Your task to perform on an android device: turn vacation reply on in the gmail app Image 0: 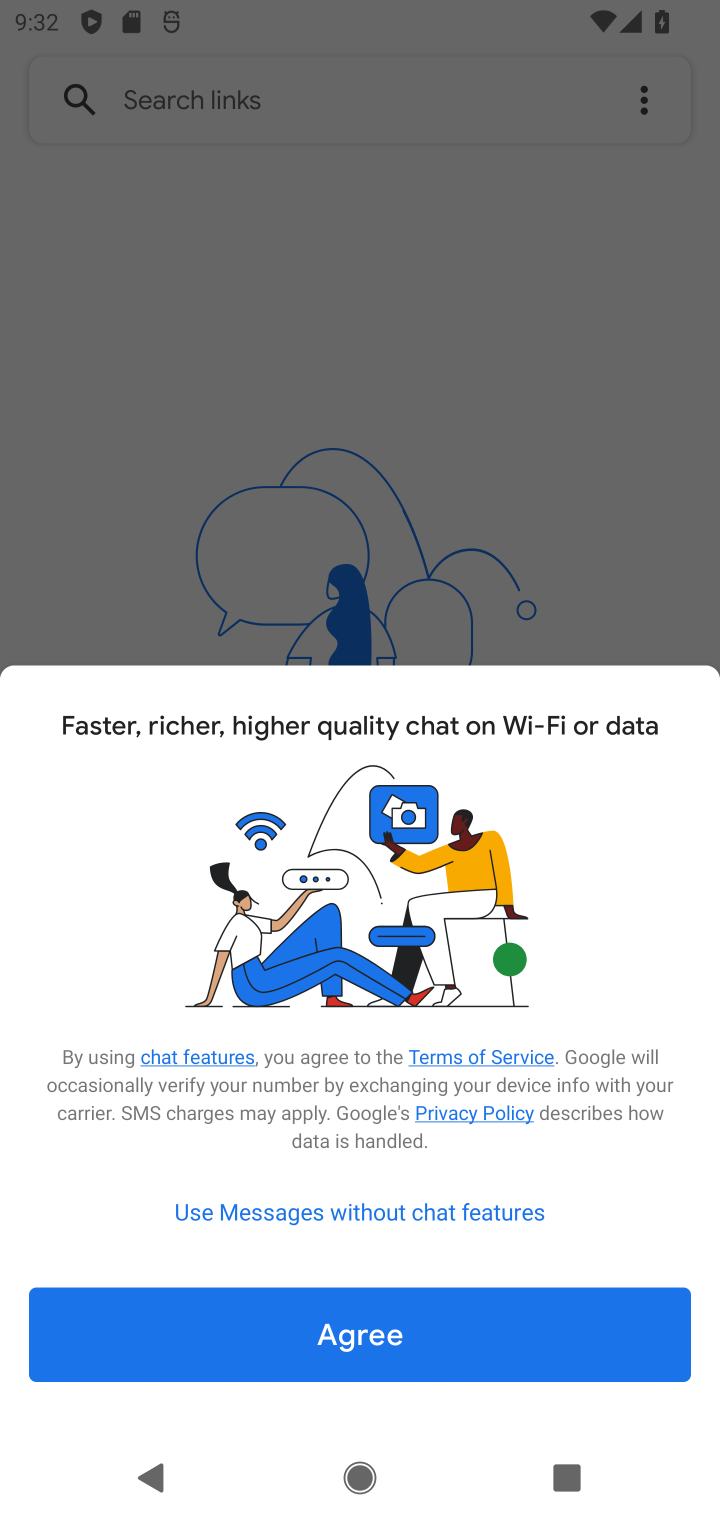
Step 0: press home button
Your task to perform on an android device: turn vacation reply on in the gmail app Image 1: 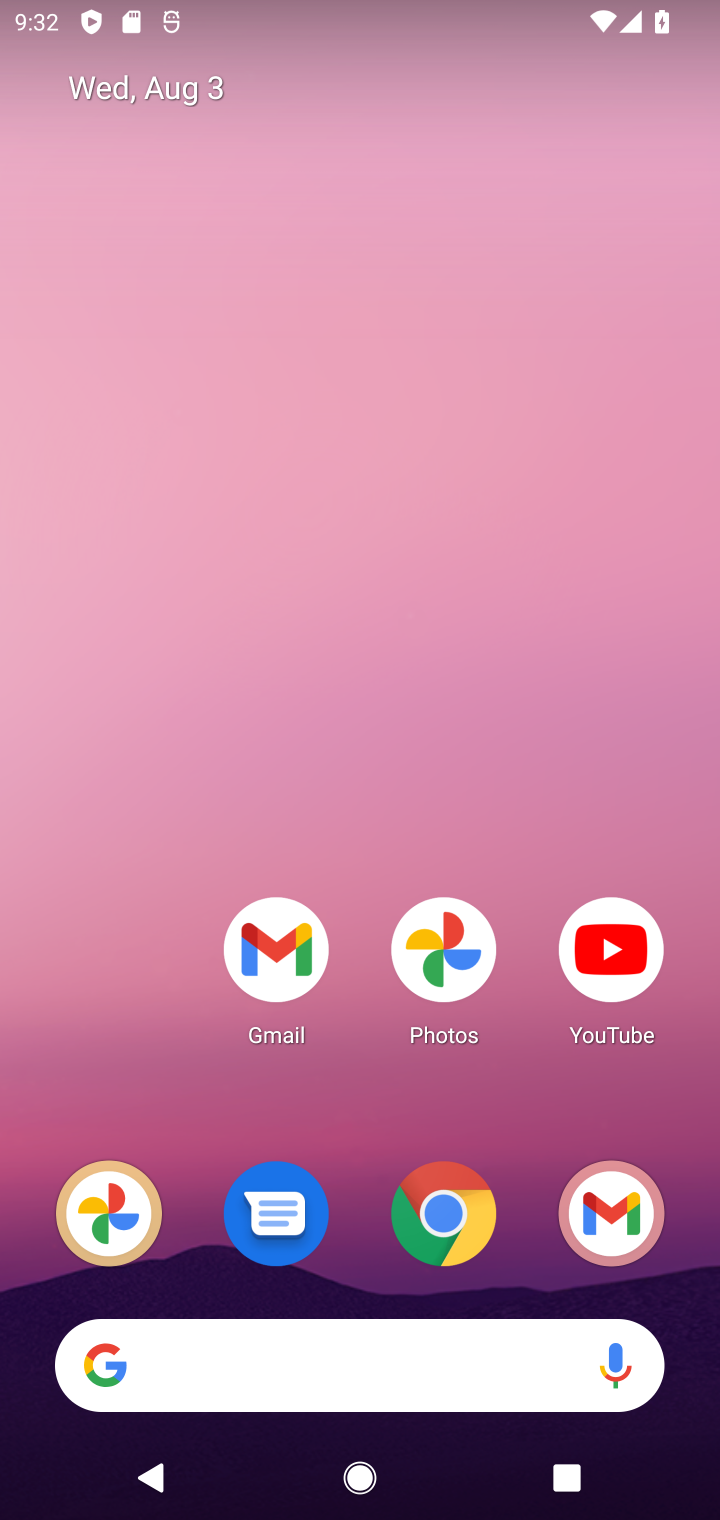
Step 1: click (289, 963)
Your task to perform on an android device: turn vacation reply on in the gmail app Image 2: 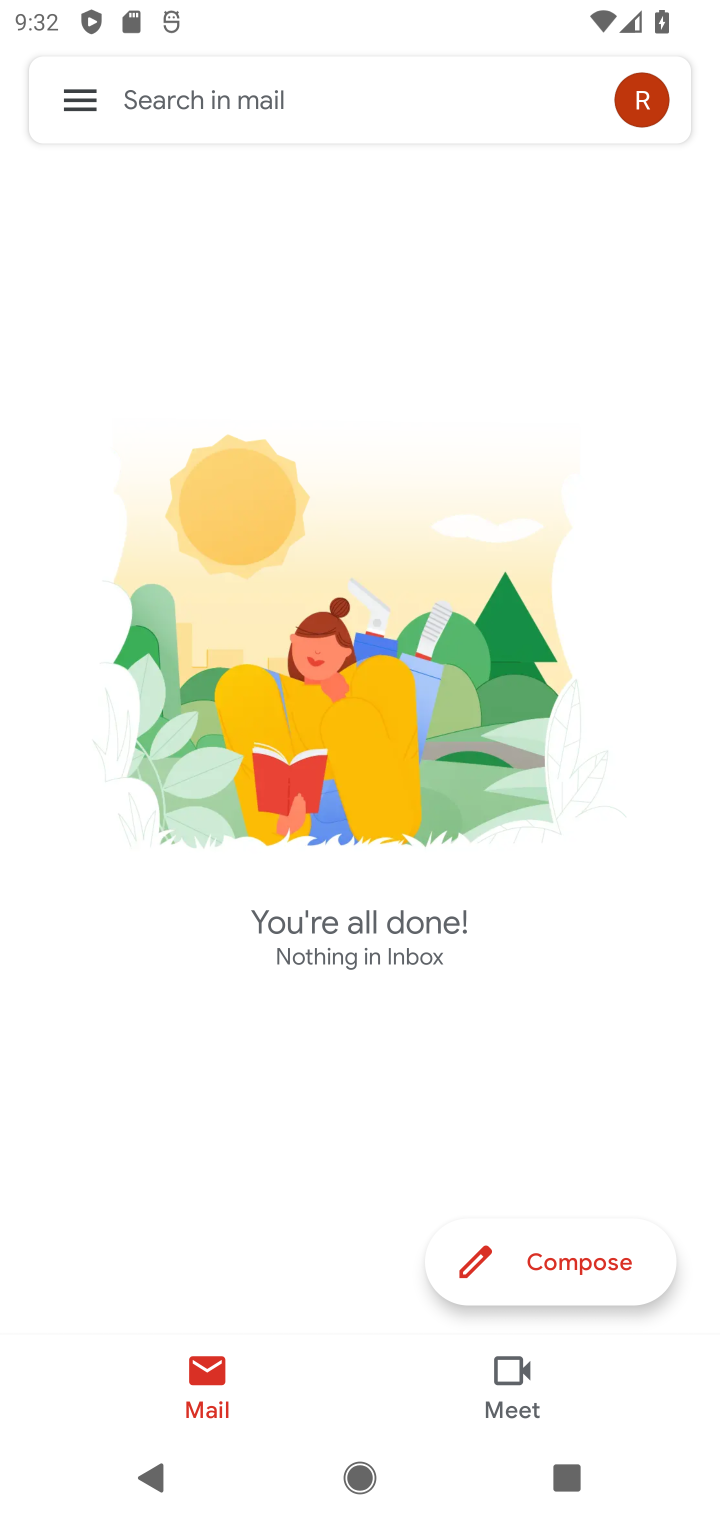
Step 2: click (60, 116)
Your task to perform on an android device: turn vacation reply on in the gmail app Image 3: 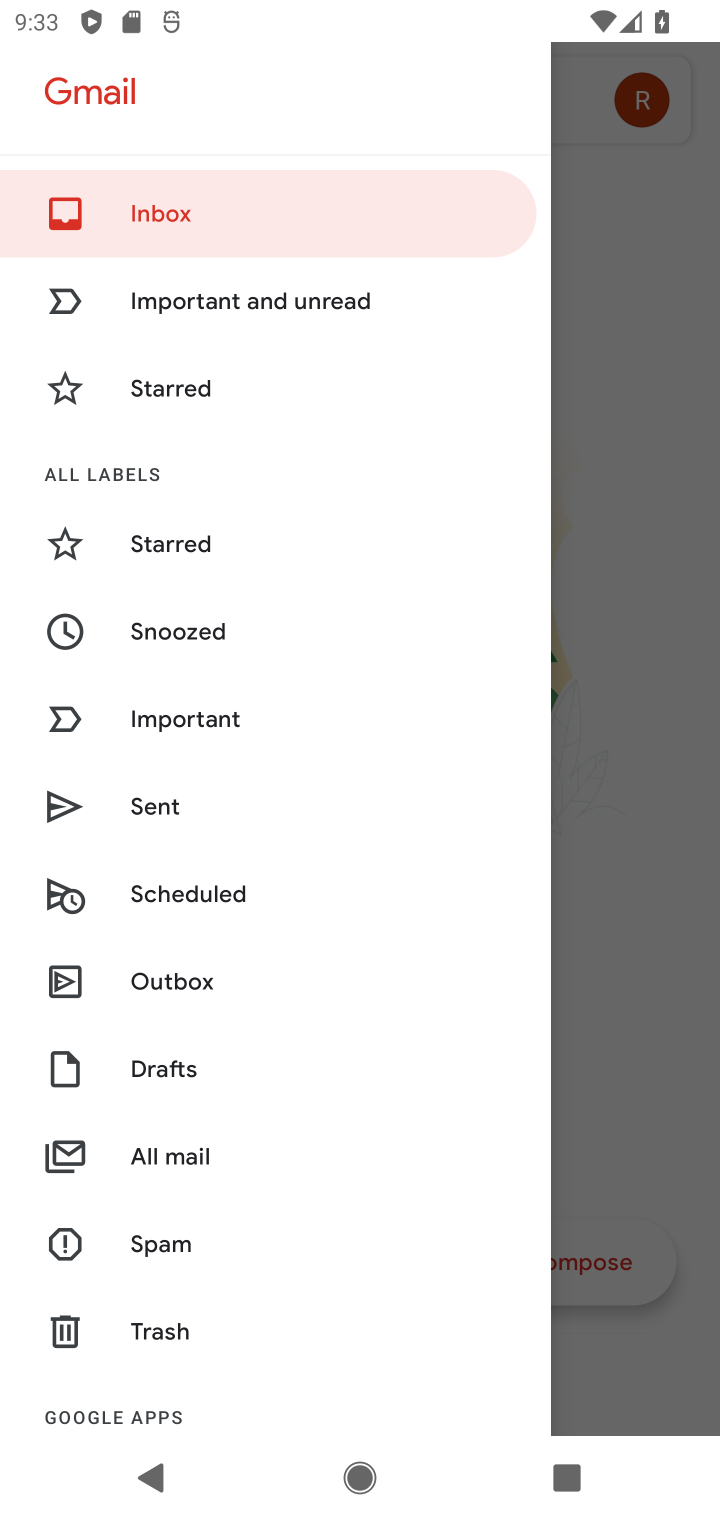
Step 3: drag from (356, 1287) to (336, 756)
Your task to perform on an android device: turn vacation reply on in the gmail app Image 4: 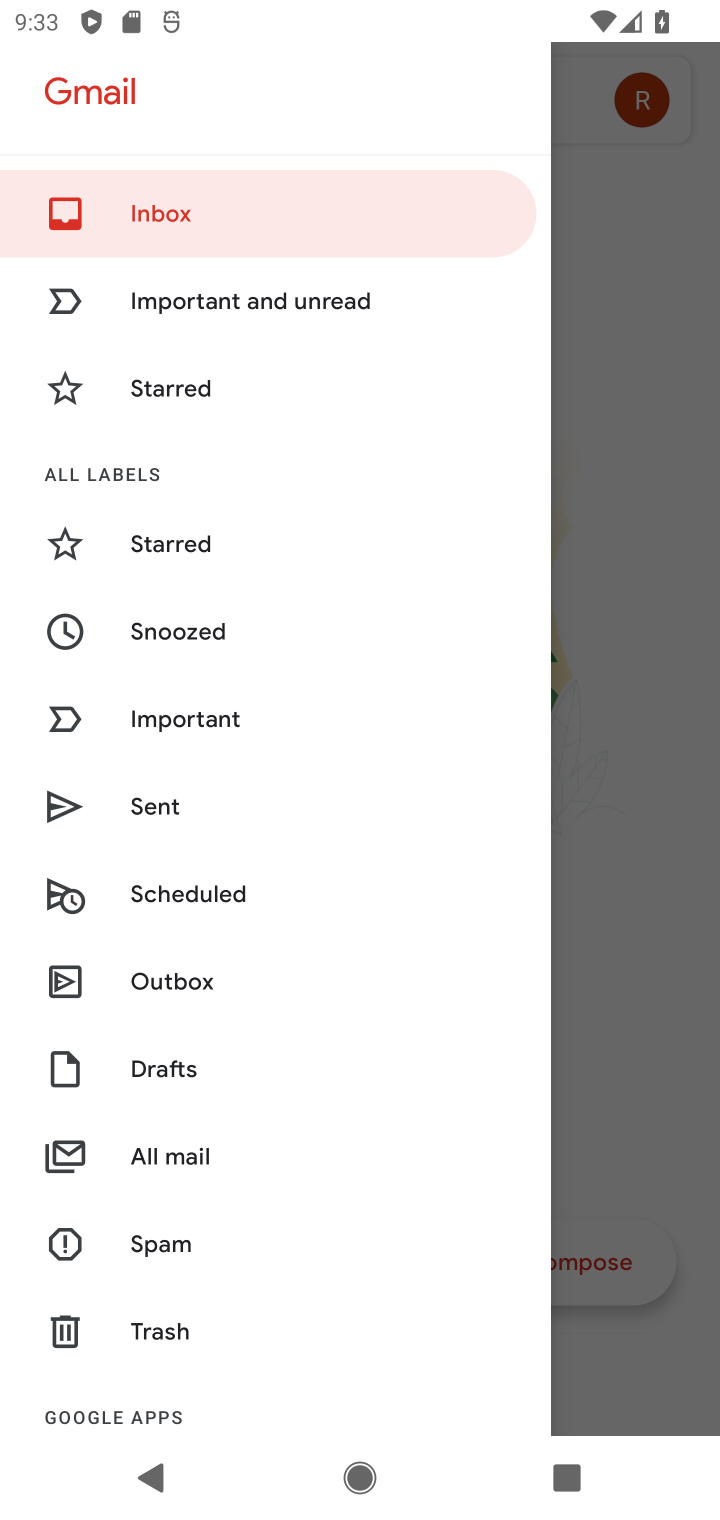
Step 4: drag from (192, 482) to (234, 29)
Your task to perform on an android device: turn vacation reply on in the gmail app Image 5: 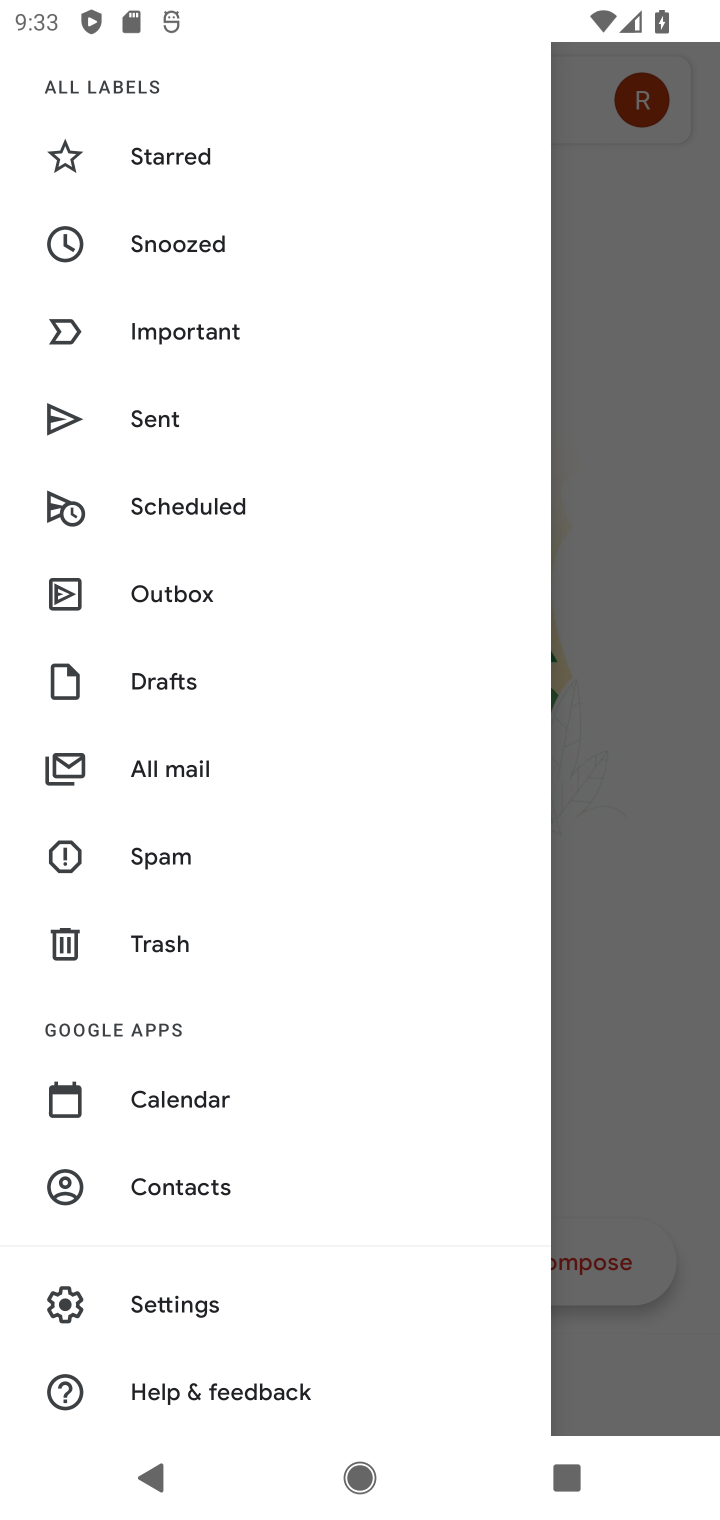
Step 5: click (205, 1277)
Your task to perform on an android device: turn vacation reply on in the gmail app Image 6: 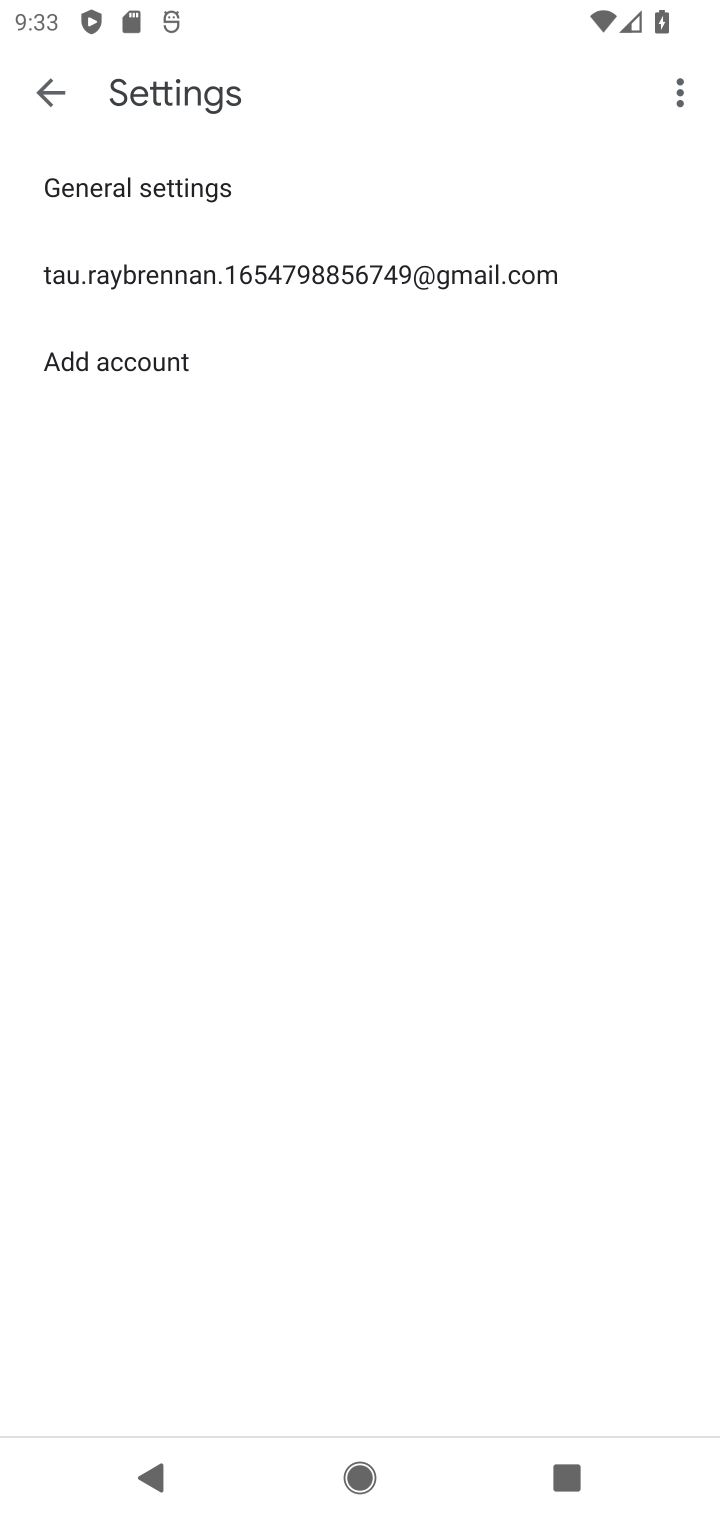
Step 6: click (378, 261)
Your task to perform on an android device: turn vacation reply on in the gmail app Image 7: 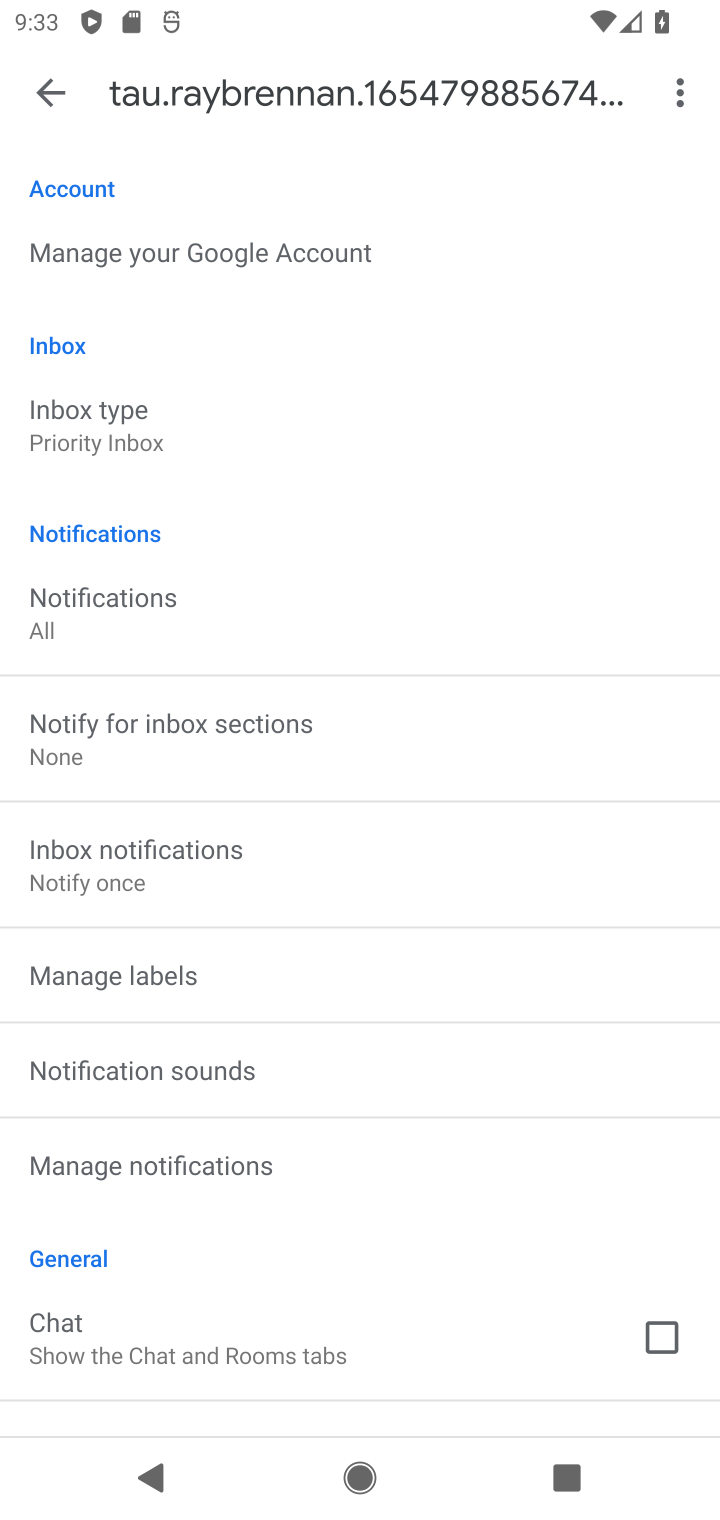
Step 7: task complete